Your task to perform on an android device: Open Maps and search for coffee Image 0: 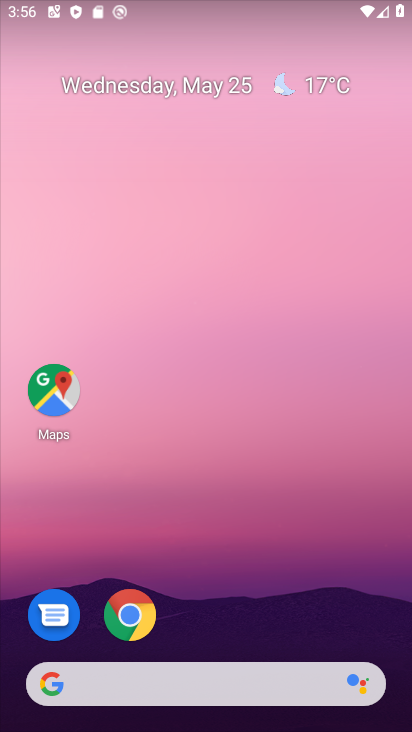
Step 0: click (52, 388)
Your task to perform on an android device: Open Maps and search for coffee Image 1: 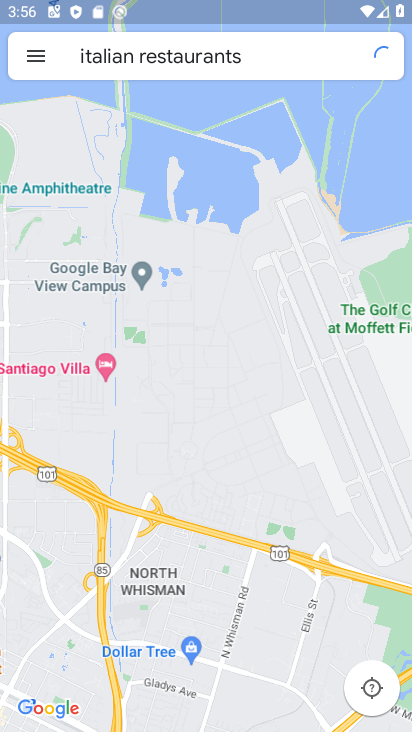
Step 1: click (261, 54)
Your task to perform on an android device: Open Maps and search for coffee Image 2: 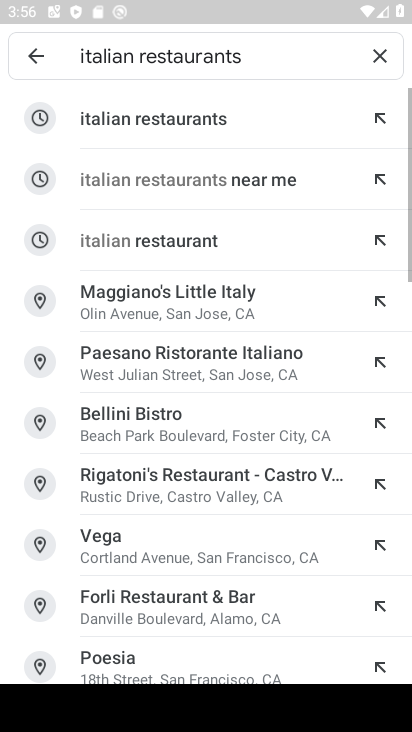
Step 2: click (374, 53)
Your task to perform on an android device: Open Maps and search for coffee Image 3: 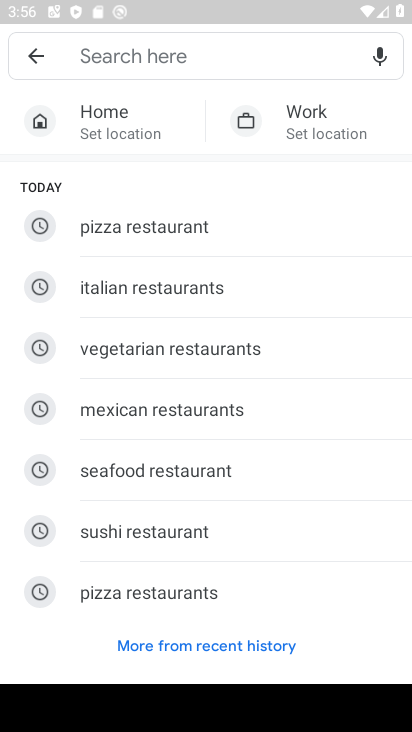
Step 3: type "coffee"
Your task to perform on an android device: Open Maps and search for coffee Image 4: 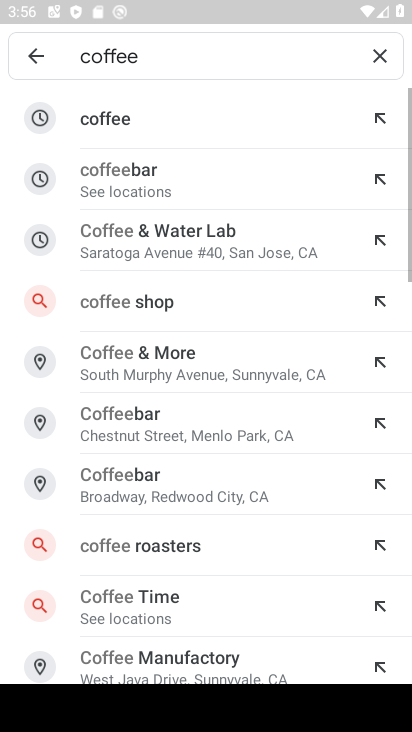
Step 4: click (155, 123)
Your task to perform on an android device: Open Maps and search for coffee Image 5: 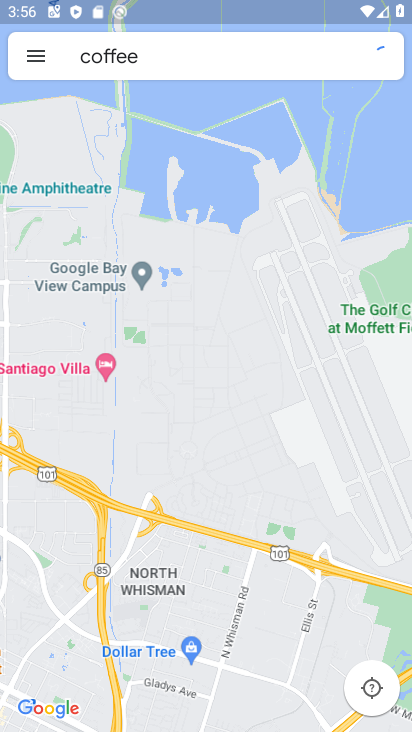
Step 5: task complete